Your task to perform on an android device: toggle data saver in the chrome app Image 0: 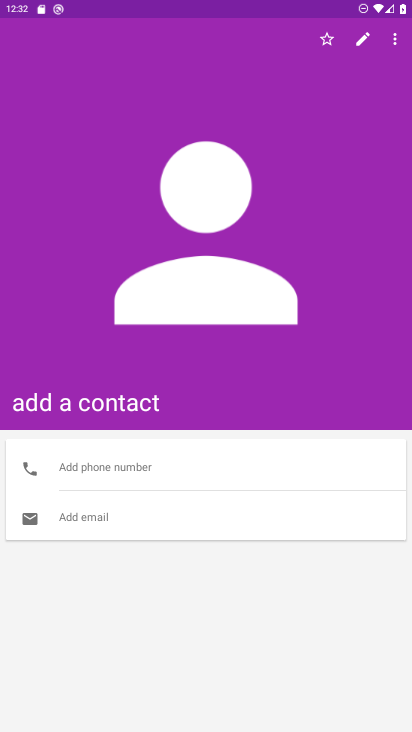
Step 0: drag from (257, 635) to (376, 270)
Your task to perform on an android device: toggle data saver in the chrome app Image 1: 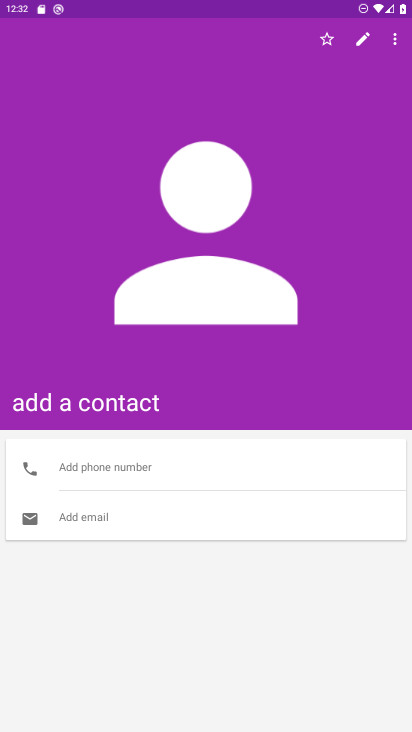
Step 1: drag from (253, 390) to (266, 645)
Your task to perform on an android device: toggle data saver in the chrome app Image 2: 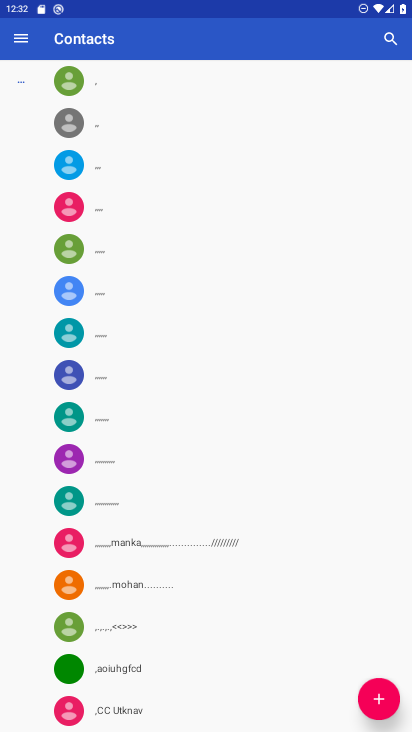
Step 2: drag from (269, 549) to (323, 383)
Your task to perform on an android device: toggle data saver in the chrome app Image 3: 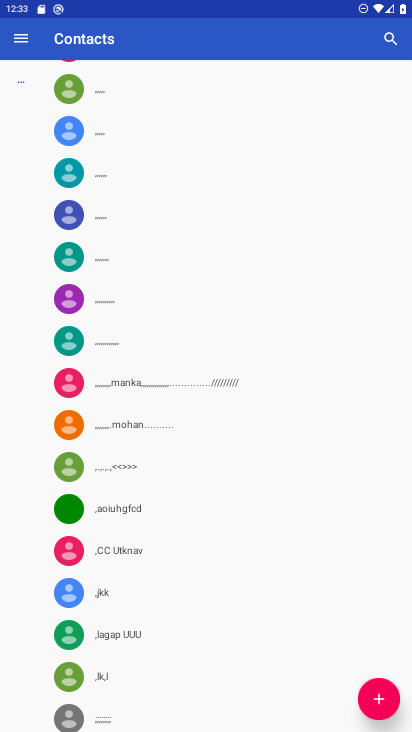
Step 3: press home button
Your task to perform on an android device: toggle data saver in the chrome app Image 4: 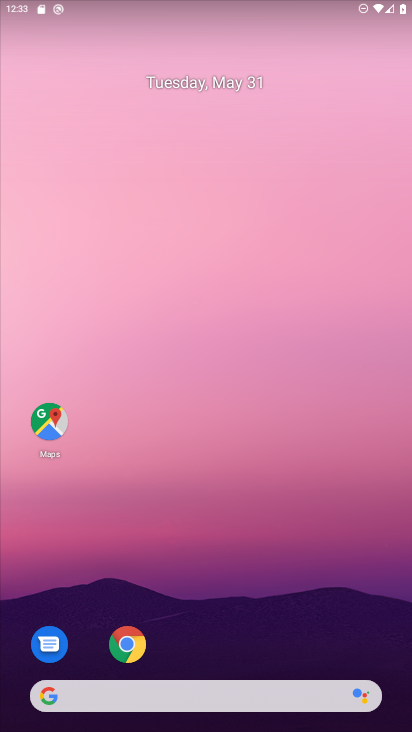
Step 4: drag from (209, 655) to (408, 0)
Your task to perform on an android device: toggle data saver in the chrome app Image 5: 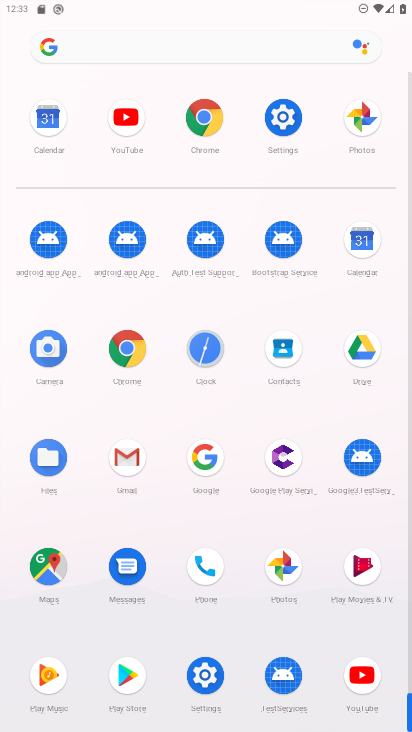
Step 5: click (199, 115)
Your task to perform on an android device: toggle data saver in the chrome app Image 6: 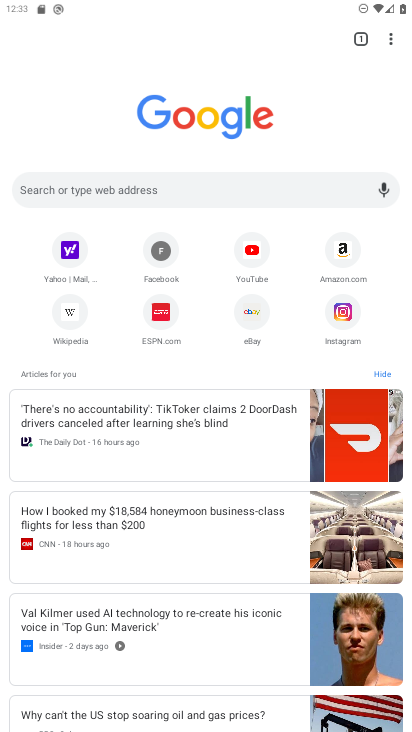
Step 6: drag from (387, 39) to (267, 355)
Your task to perform on an android device: toggle data saver in the chrome app Image 7: 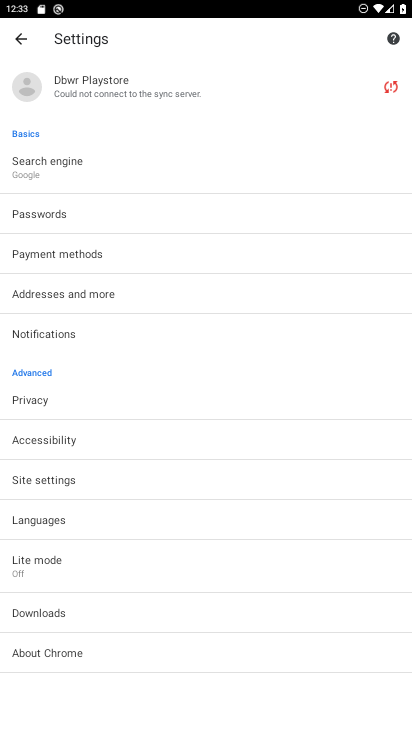
Step 7: click (69, 561)
Your task to perform on an android device: toggle data saver in the chrome app Image 8: 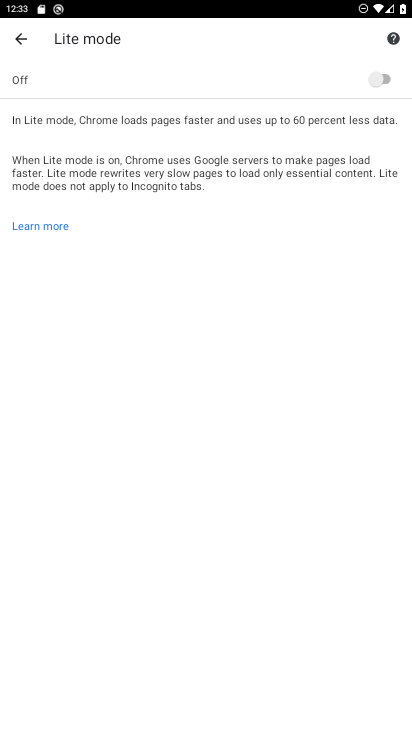
Step 8: click (381, 83)
Your task to perform on an android device: toggle data saver in the chrome app Image 9: 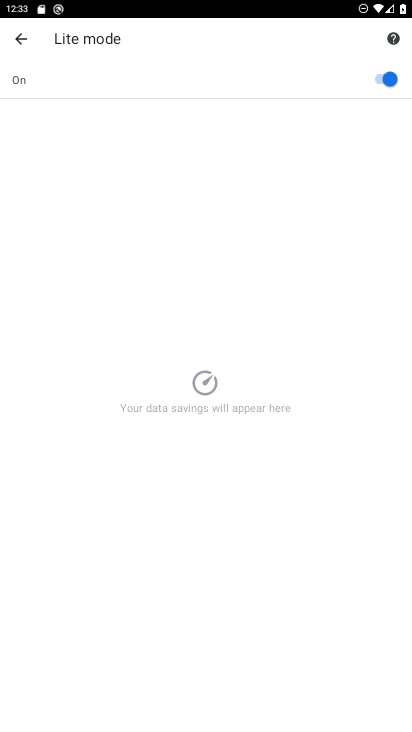
Step 9: task complete